Your task to perform on an android device: check data usage Image 0: 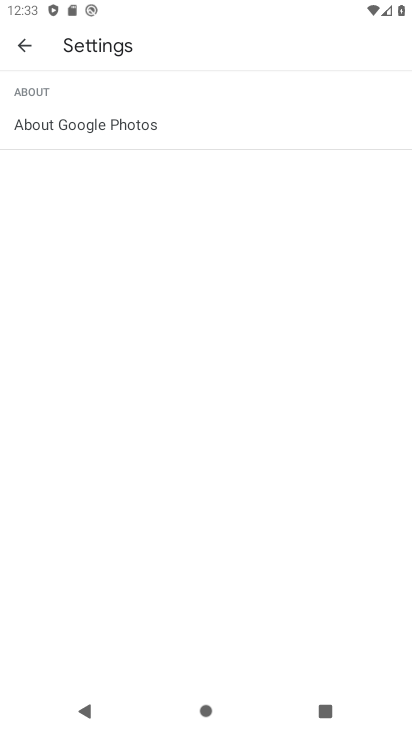
Step 0: press home button
Your task to perform on an android device: check data usage Image 1: 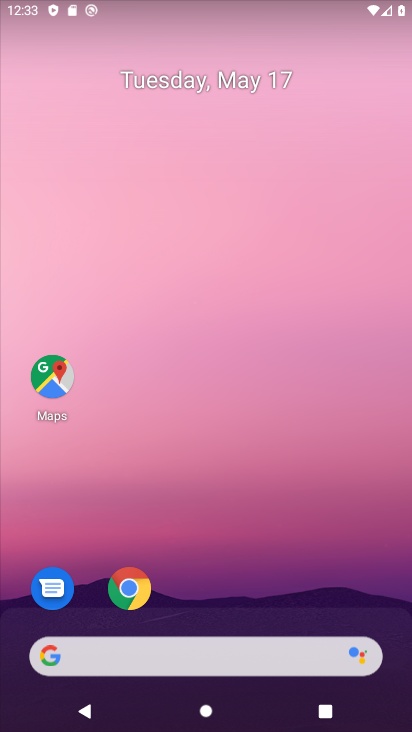
Step 1: drag from (206, 588) to (305, 124)
Your task to perform on an android device: check data usage Image 2: 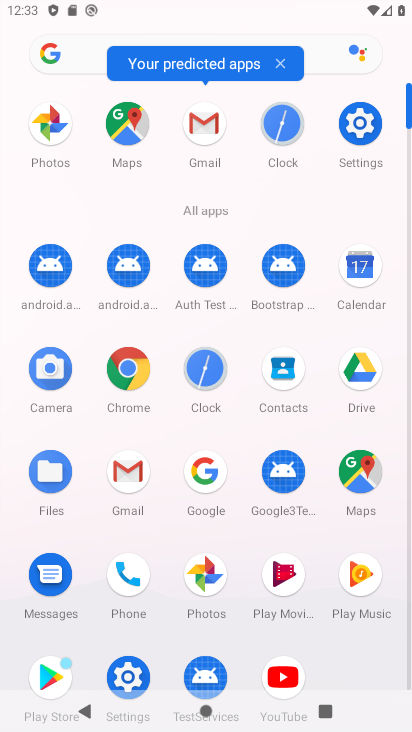
Step 2: click (137, 668)
Your task to perform on an android device: check data usage Image 3: 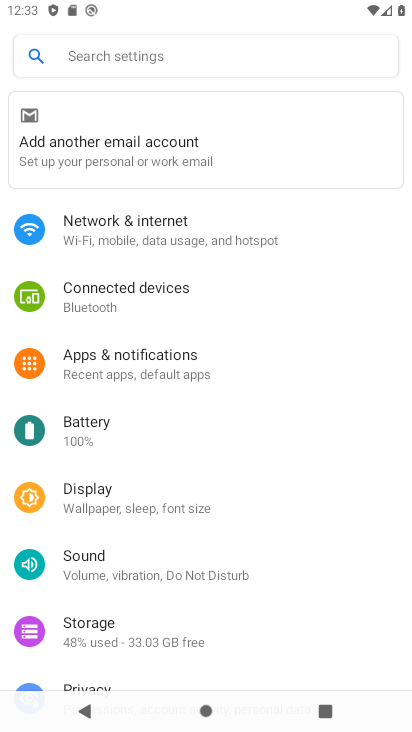
Step 3: click (232, 236)
Your task to perform on an android device: check data usage Image 4: 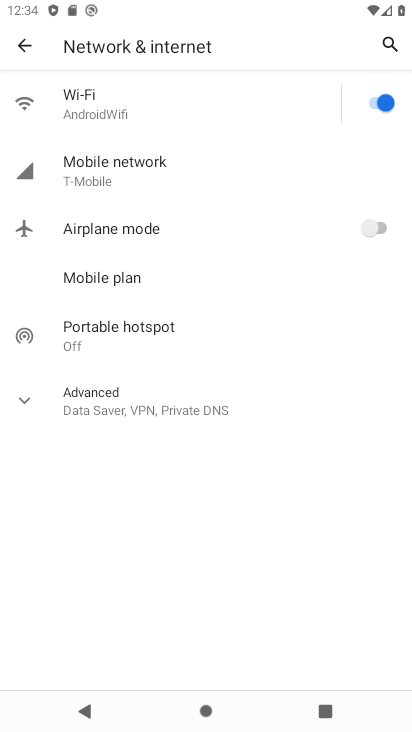
Step 4: click (165, 180)
Your task to perform on an android device: check data usage Image 5: 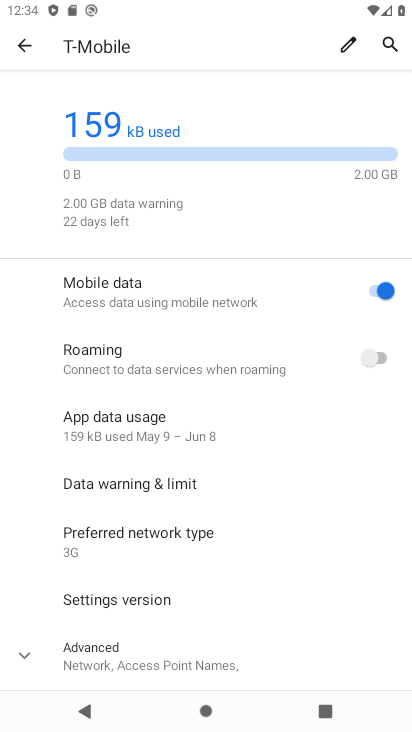
Step 5: click (208, 441)
Your task to perform on an android device: check data usage Image 6: 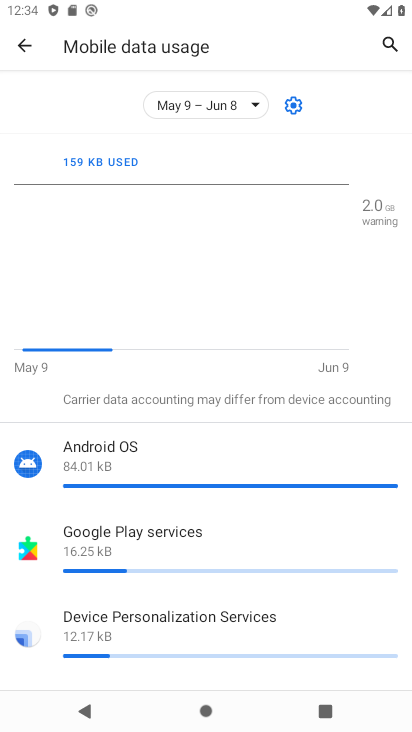
Step 6: task complete